Your task to perform on an android device: See recent photos Image 0: 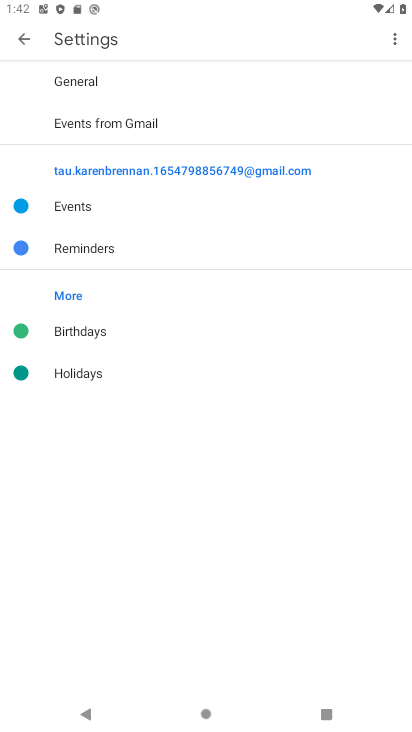
Step 0: press home button
Your task to perform on an android device: See recent photos Image 1: 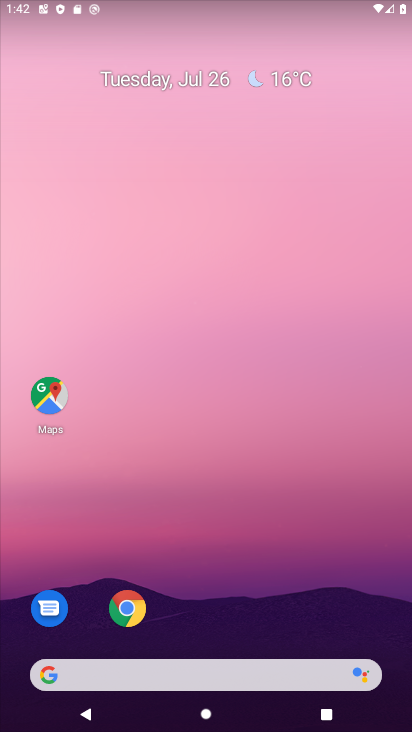
Step 1: drag from (265, 650) to (261, 193)
Your task to perform on an android device: See recent photos Image 2: 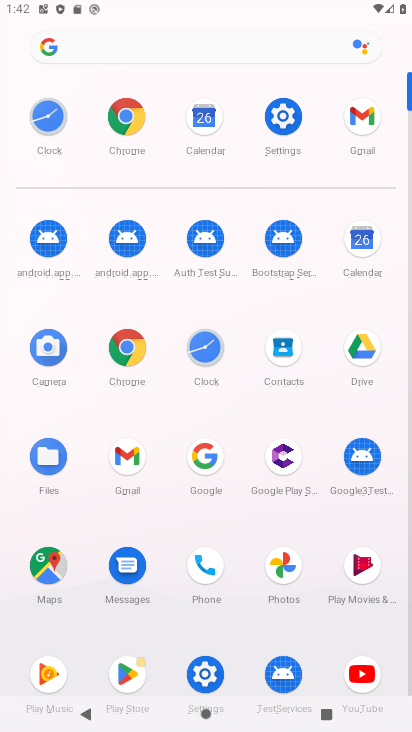
Step 2: click (283, 600)
Your task to perform on an android device: See recent photos Image 3: 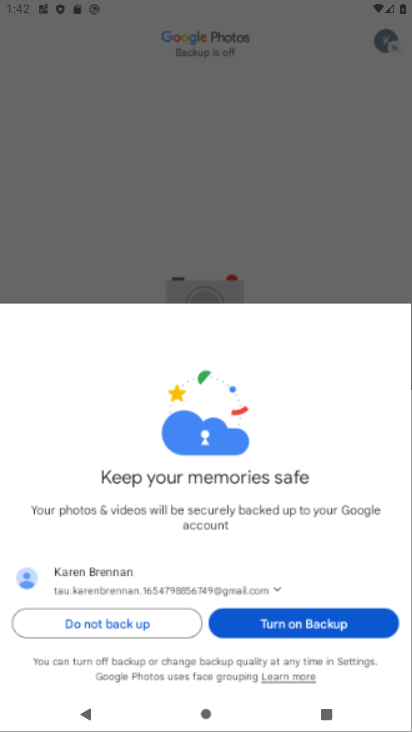
Step 3: task complete